Your task to perform on an android device: choose inbox layout in the gmail app Image 0: 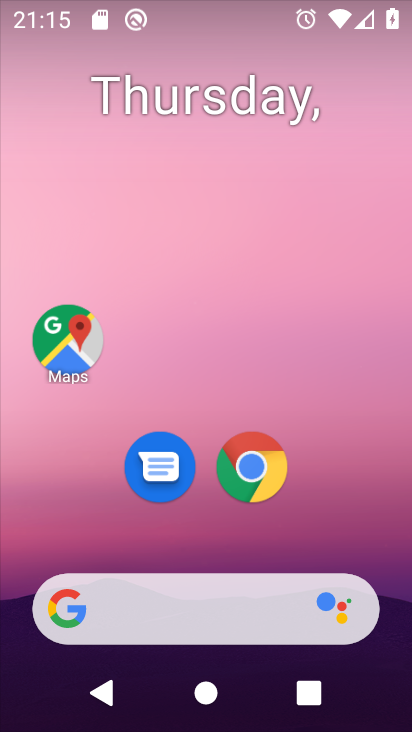
Step 0: drag from (368, 514) to (403, 121)
Your task to perform on an android device: choose inbox layout in the gmail app Image 1: 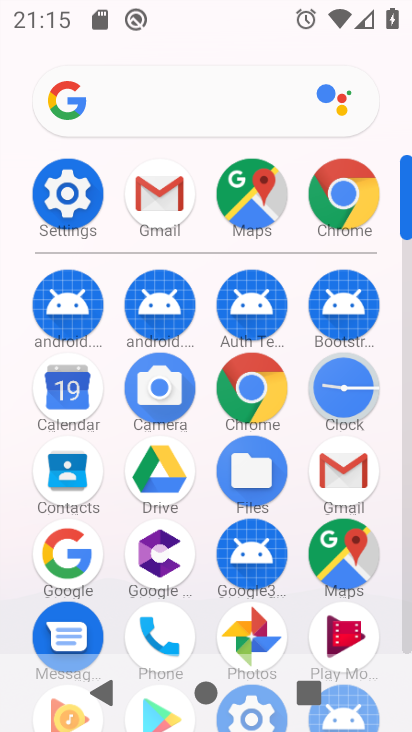
Step 1: click (342, 477)
Your task to perform on an android device: choose inbox layout in the gmail app Image 2: 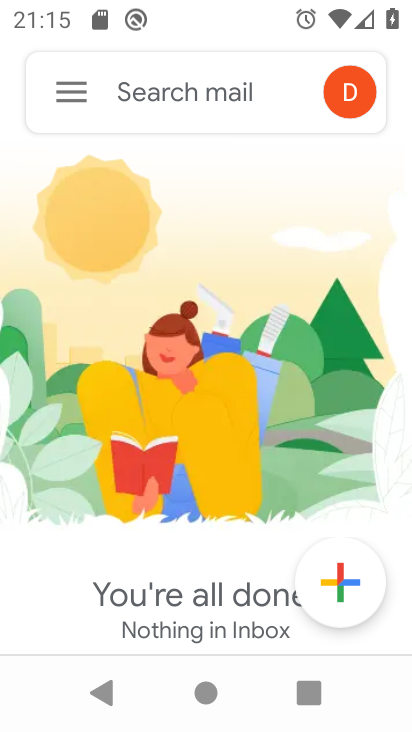
Step 2: click (59, 93)
Your task to perform on an android device: choose inbox layout in the gmail app Image 3: 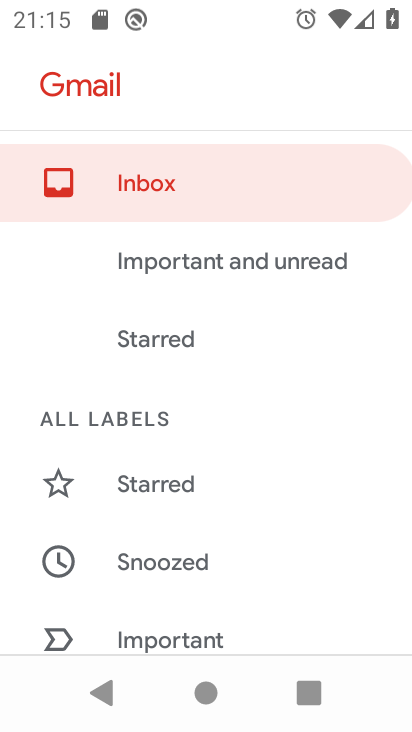
Step 3: drag from (285, 616) to (345, 313)
Your task to perform on an android device: choose inbox layout in the gmail app Image 4: 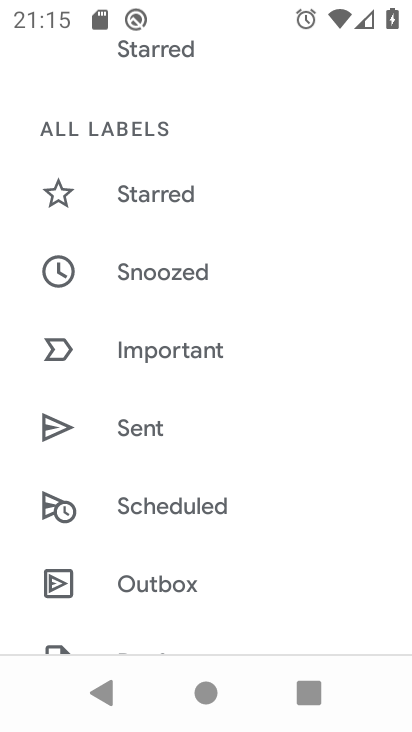
Step 4: drag from (239, 548) to (308, 141)
Your task to perform on an android device: choose inbox layout in the gmail app Image 5: 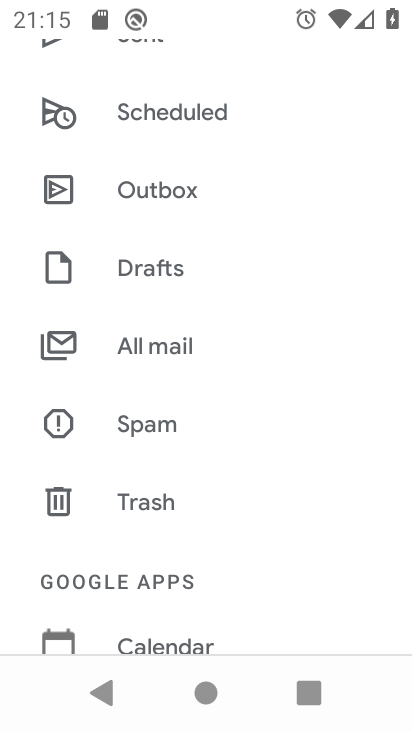
Step 5: drag from (209, 588) to (286, 191)
Your task to perform on an android device: choose inbox layout in the gmail app Image 6: 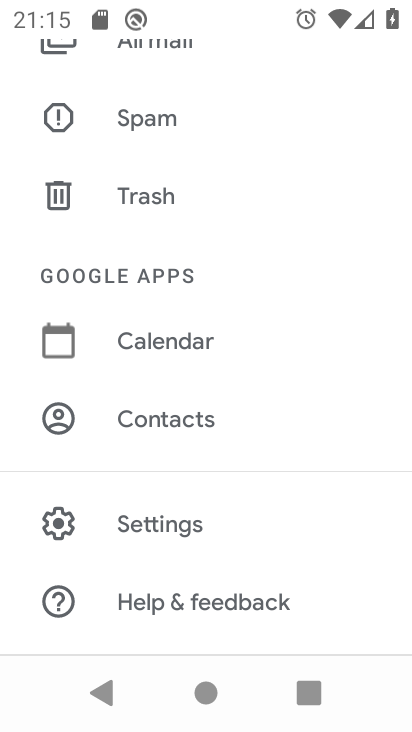
Step 6: click (176, 507)
Your task to perform on an android device: choose inbox layout in the gmail app Image 7: 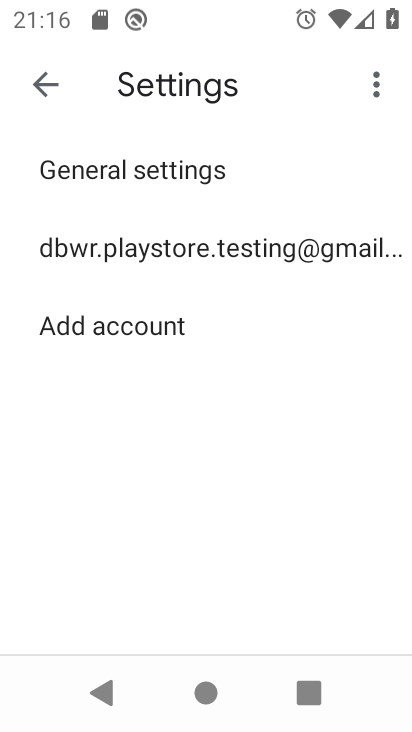
Step 7: click (195, 244)
Your task to perform on an android device: choose inbox layout in the gmail app Image 8: 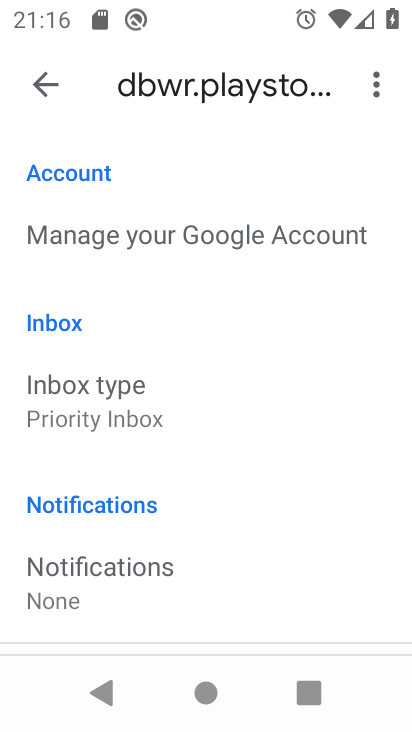
Step 8: click (126, 391)
Your task to perform on an android device: choose inbox layout in the gmail app Image 9: 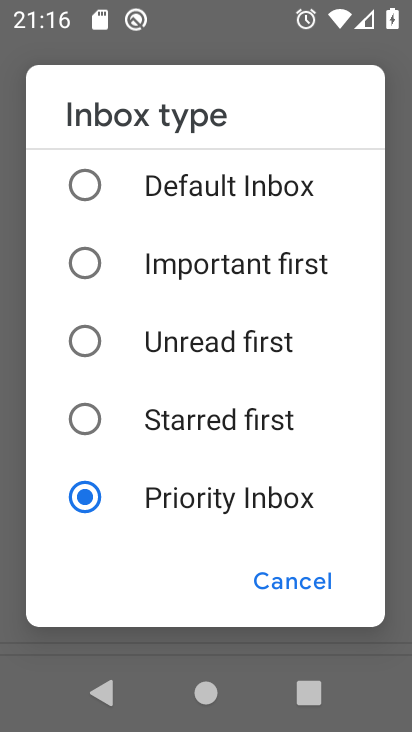
Step 9: click (166, 339)
Your task to perform on an android device: choose inbox layout in the gmail app Image 10: 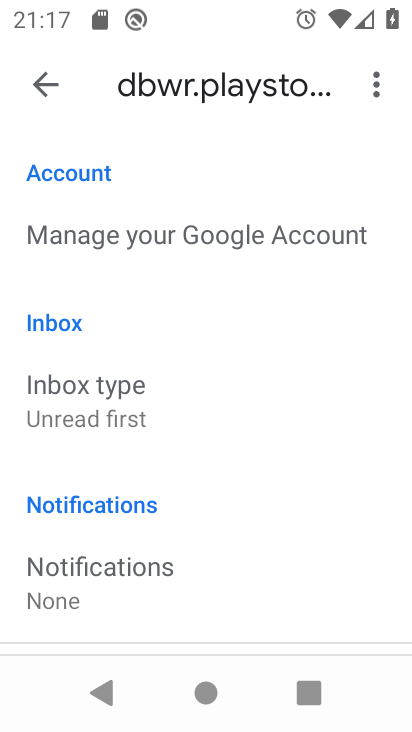
Step 10: task complete